Your task to perform on an android device: Search for Mexican restaurants on Maps Image 0: 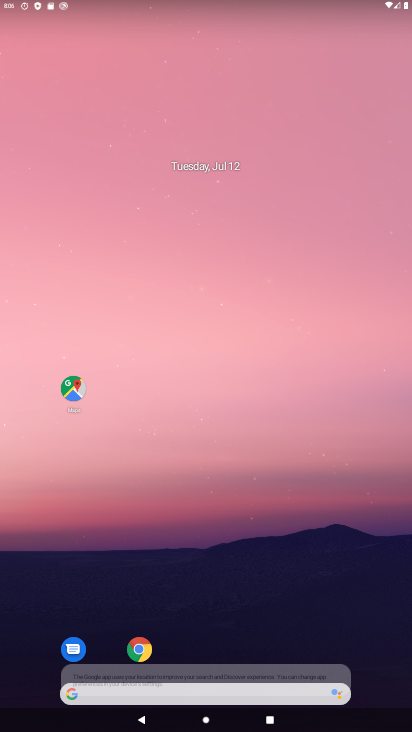
Step 0: drag from (279, 614) to (253, 115)
Your task to perform on an android device: Search for Mexican restaurants on Maps Image 1: 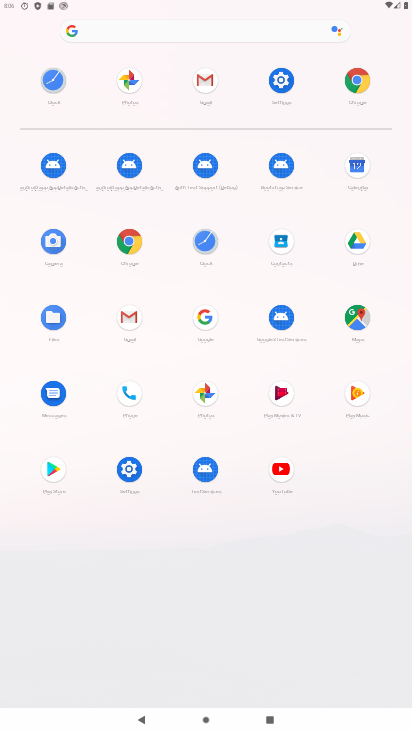
Step 1: click (367, 319)
Your task to perform on an android device: Search for Mexican restaurants on Maps Image 2: 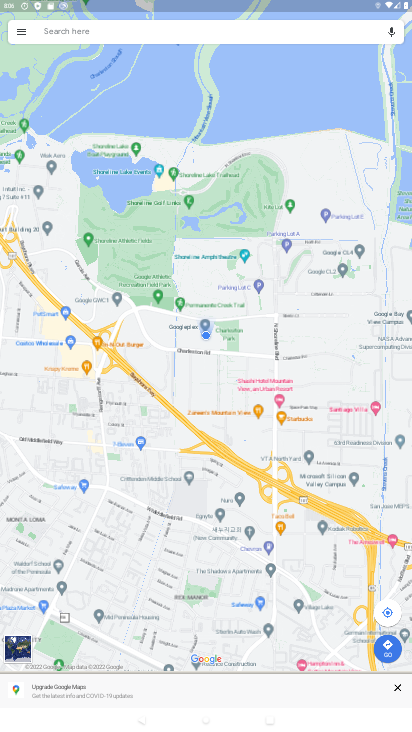
Step 2: click (223, 42)
Your task to perform on an android device: Search for Mexican restaurants on Maps Image 3: 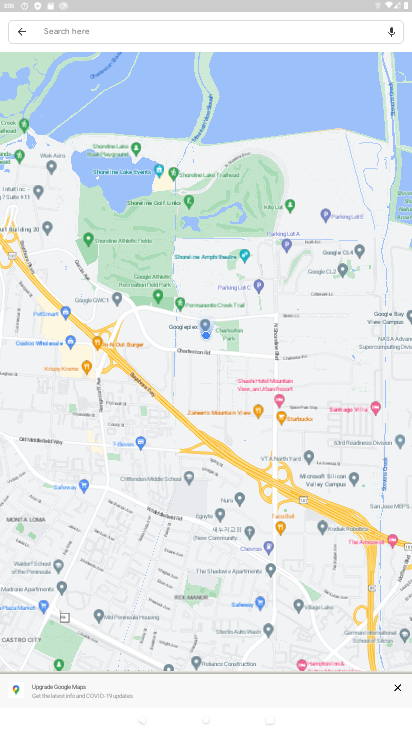
Step 3: click (233, 29)
Your task to perform on an android device: Search for Mexican restaurants on Maps Image 4: 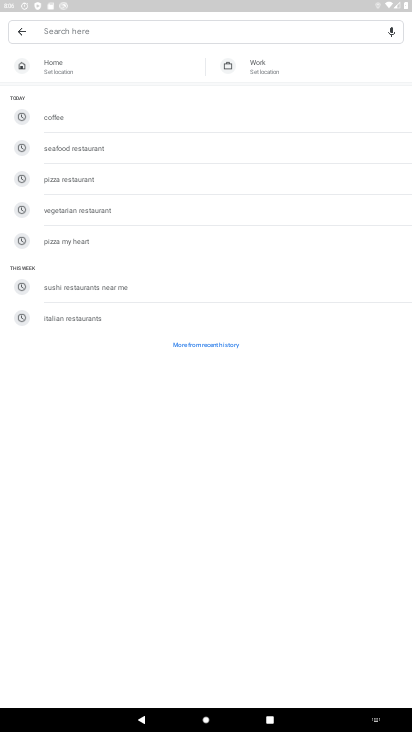
Step 4: type "Mexican restaurants"
Your task to perform on an android device: Search for Mexican restaurants on Maps Image 5: 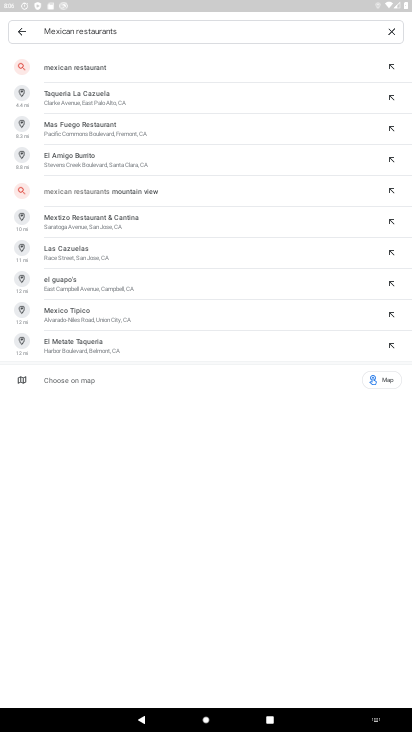
Step 5: press enter
Your task to perform on an android device: Search for Mexican restaurants on Maps Image 6: 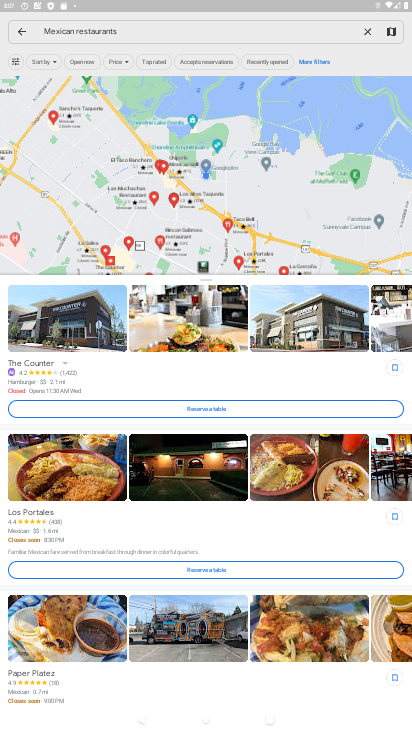
Step 6: task complete